Your task to perform on an android device: Search for Italian restaurants on Maps Image 0: 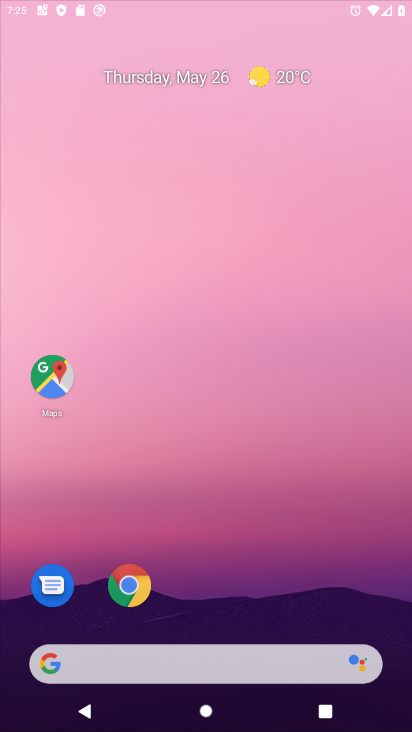
Step 0: click (280, 157)
Your task to perform on an android device: Search for Italian restaurants on Maps Image 1: 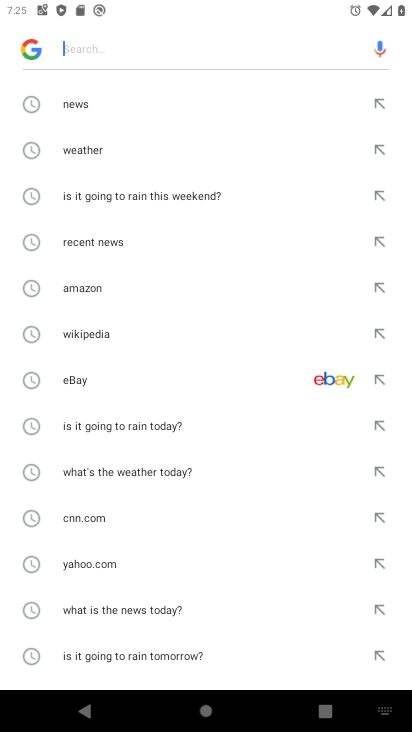
Step 1: press home button
Your task to perform on an android device: Search for Italian restaurants on Maps Image 2: 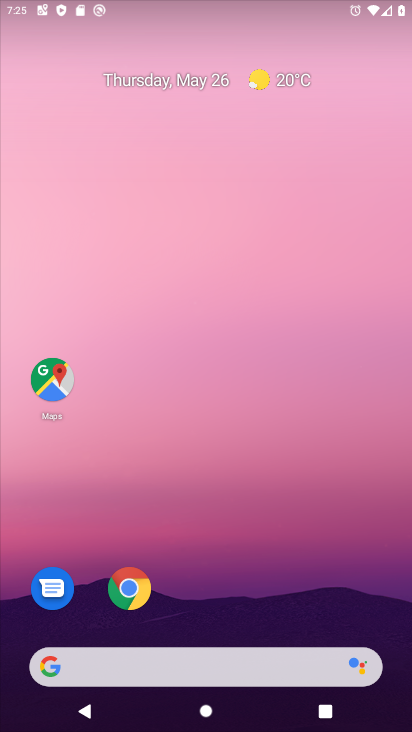
Step 2: drag from (352, 606) to (263, 79)
Your task to perform on an android device: Search for Italian restaurants on Maps Image 3: 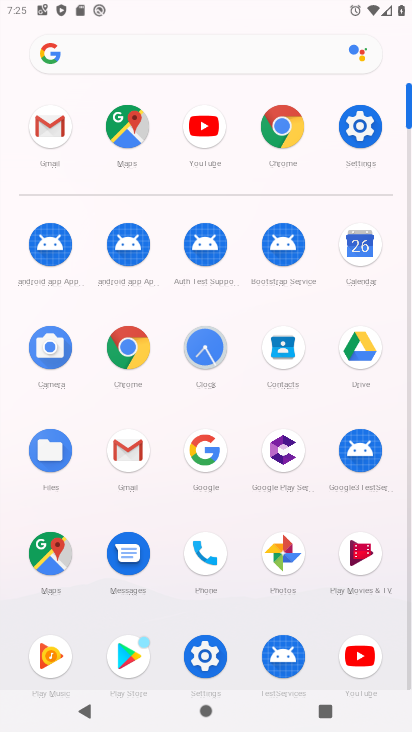
Step 3: click (118, 140)
Your task to perform on an android device: Search for Italian restaurants on Maps Image 4: 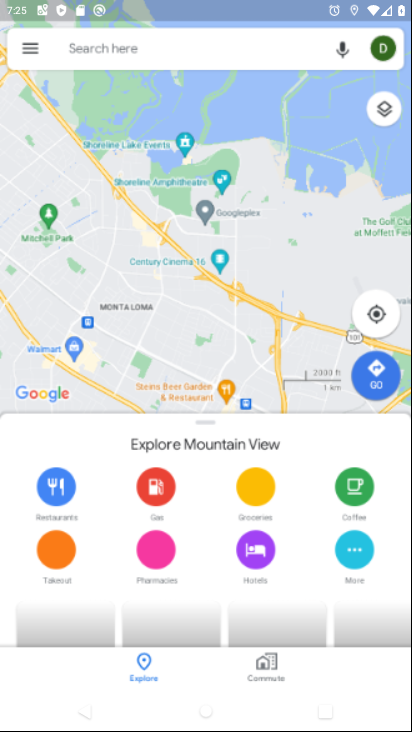
Step 4: click (146, 61)
Your task to perform on an android device: Search for Italian restaurants on Maps Image 5: 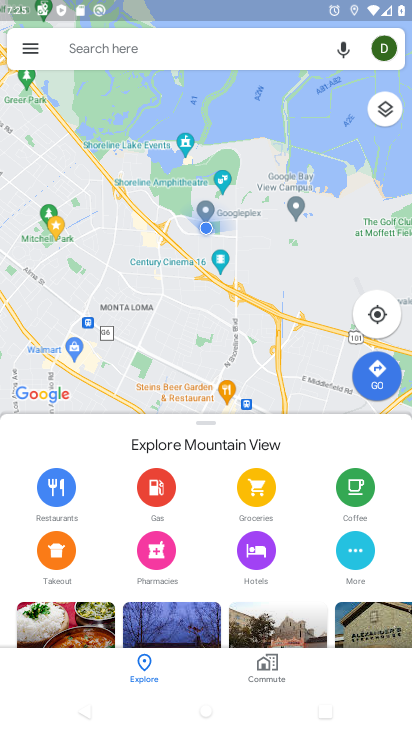
Step 5: click (146, 61)
Your task to perform on an android device: Search for Italian restaurants on Maps Image 6: 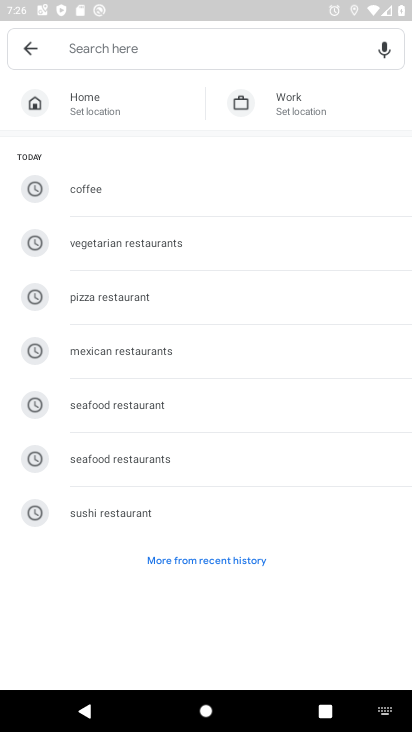
Step 6: type "Italian restaurnts"
Your task to perform on an android device: Search for Italian restaurants on Maps Image 7: 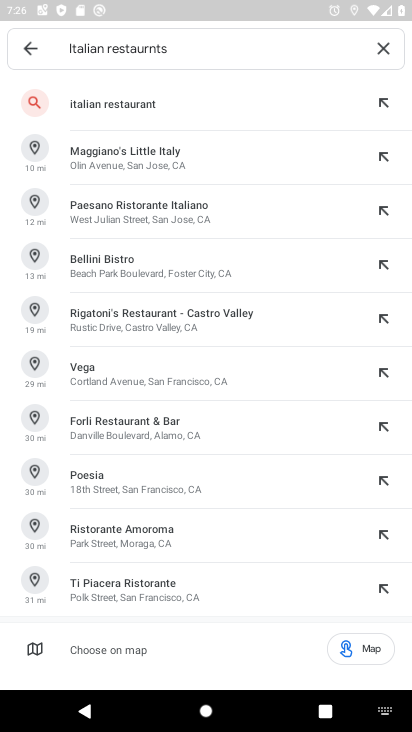
Step 7: click (157, 123)
Your task to perform on an android device: Search for Italian restaurants on Maps Image 8: 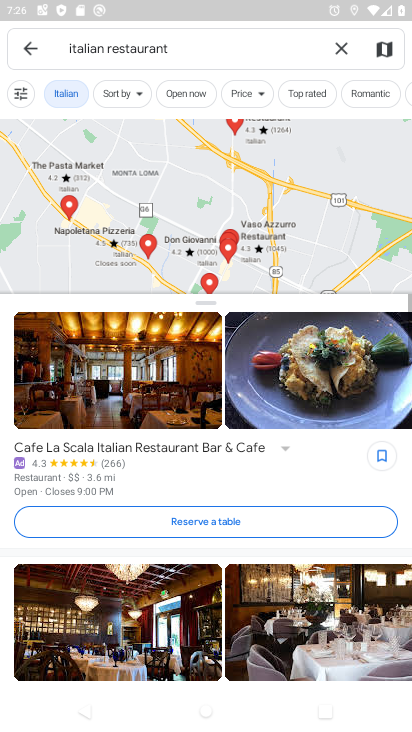
Step 8: task complete